Your task to perform on an android device: Go to location settings Image 0: 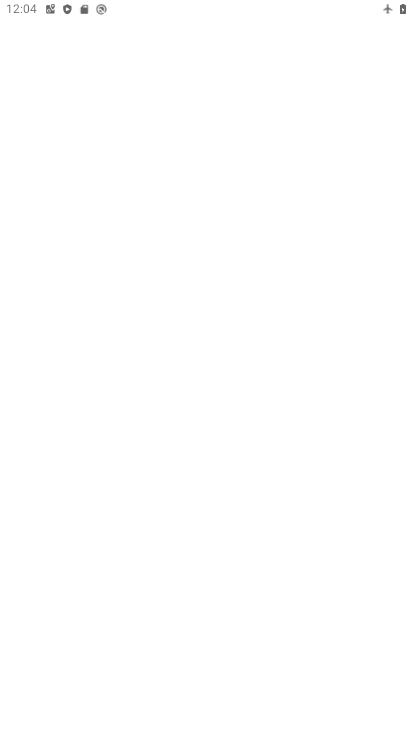
Step 0: press home button
Your task to perform on an android device: Go to location settings Image 1: 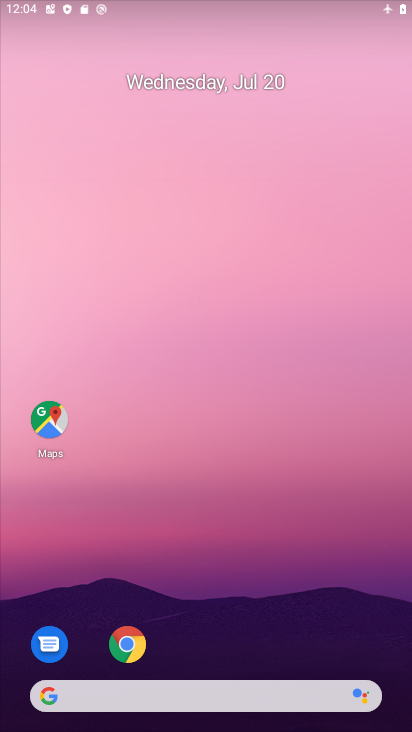
Step 1: drag from (320, 660) to (312, 90)
Your task to perform on an android device: Go to location settings Image 2: 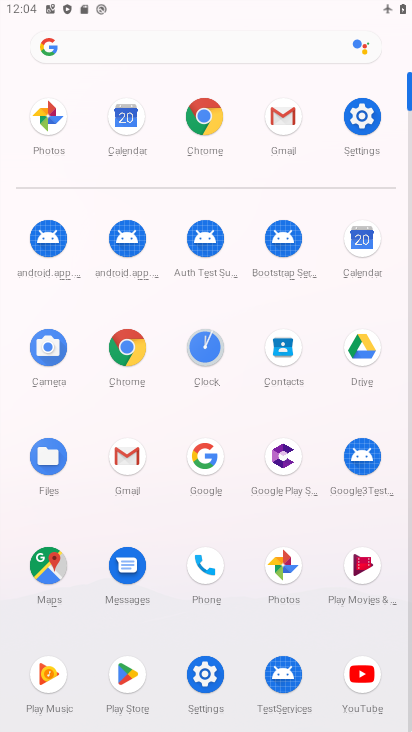
Step 2: click (187, 679)
Your task to perform on an android device: Go to location settings Image 3: 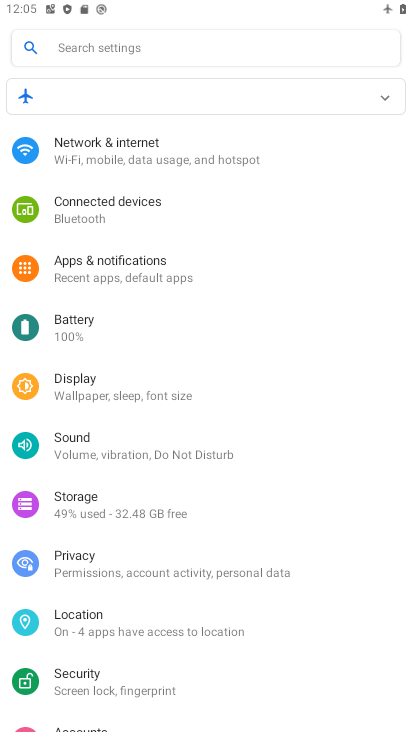
Step 3: click (99, 621)
Your task to perform on an android device: Go to location settings Image 4: 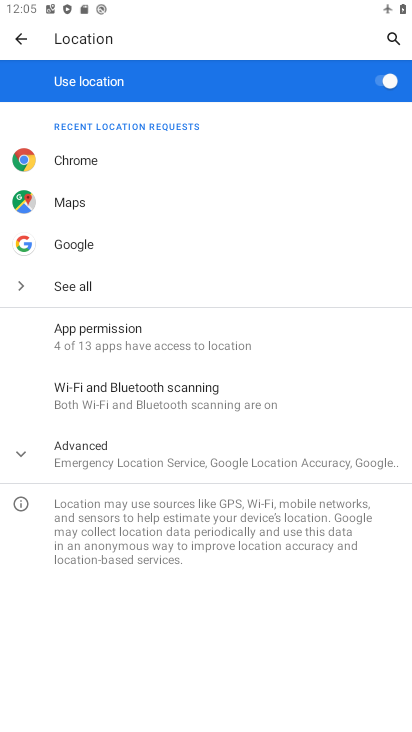
Step 4: task complete